Your task to perform on an android device: Check the news Image 0: 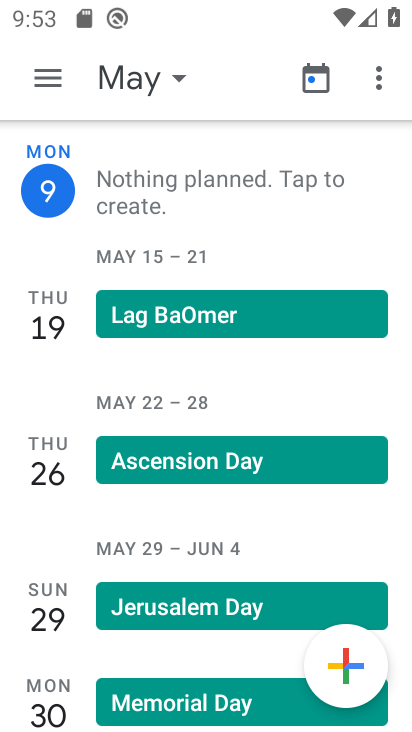
Step 0: press home button
Your task to perform on an android device: Check the news Image 1: 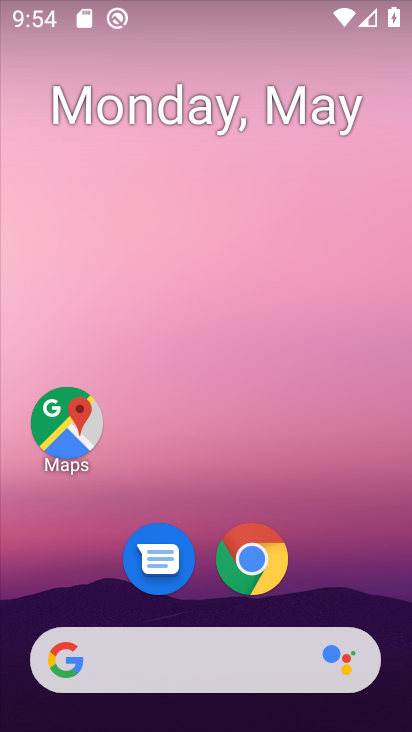
Step 1: task complete